Your task to perform on an android device: toggle location history Image 0: 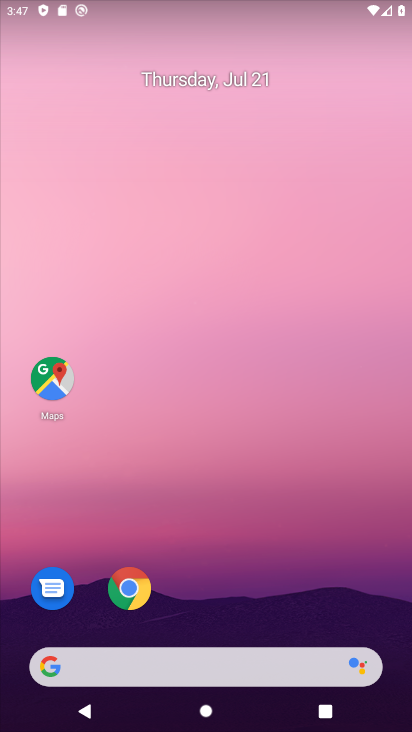
Step 0: drag from (263, 611) to (235, 72)
Your task to perform on an android device: toggle location history Image 1: 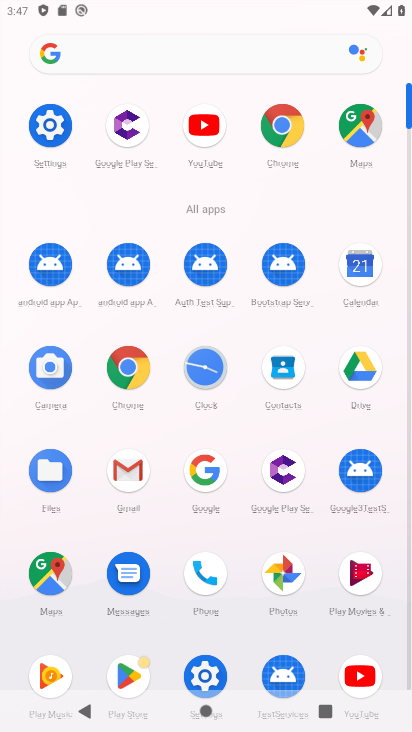
Step 1: click (55, 572)
Your task to perform on an android device: toggle location history Image 2: 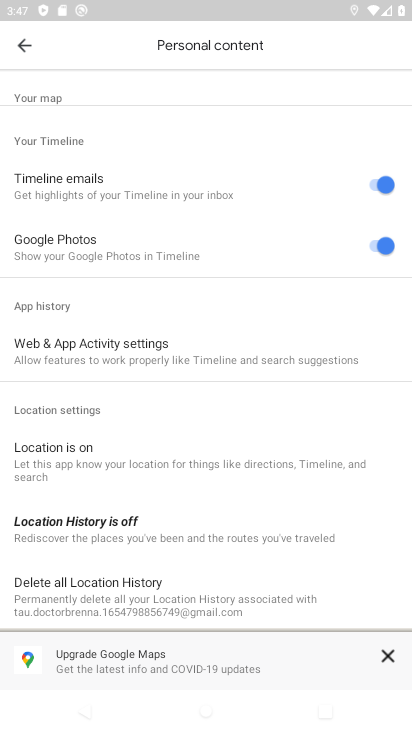
Step 2: click (101, 521)
Your task to perform on an android device: toggle location history Image 3: 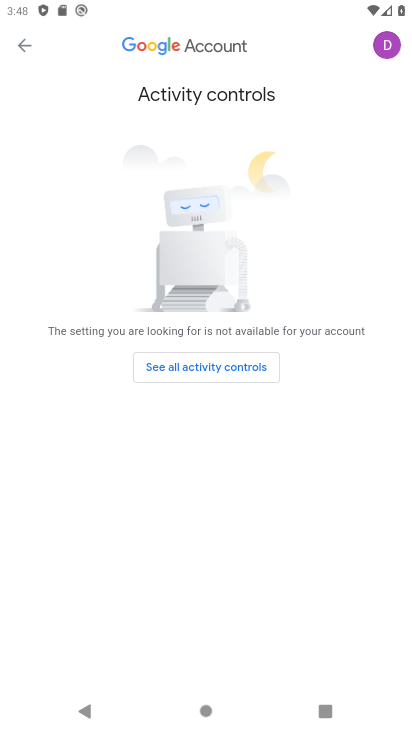
Step 3: click (255, 370)
Your task to perform on an android device: toggle location history Image 4: 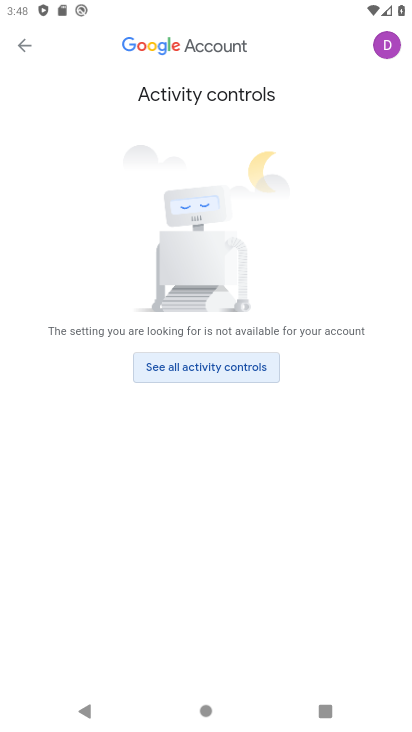
Step 4: task complete